Your task to perform on an android device: Go to location settings Image 0: 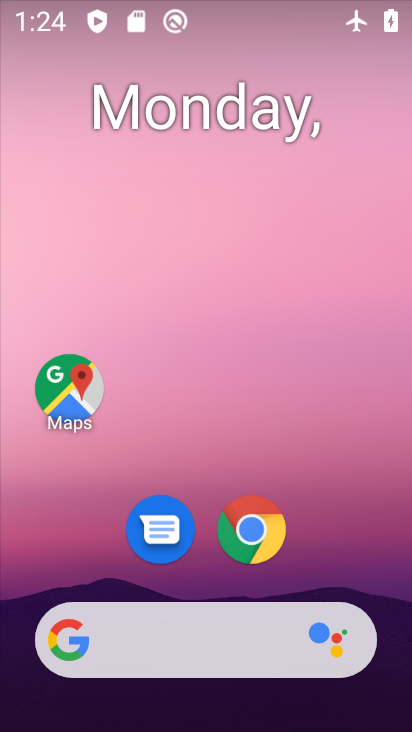
Step 0: click (381, 537)
Your task to perform on an android device: Go to location settings Image 1: 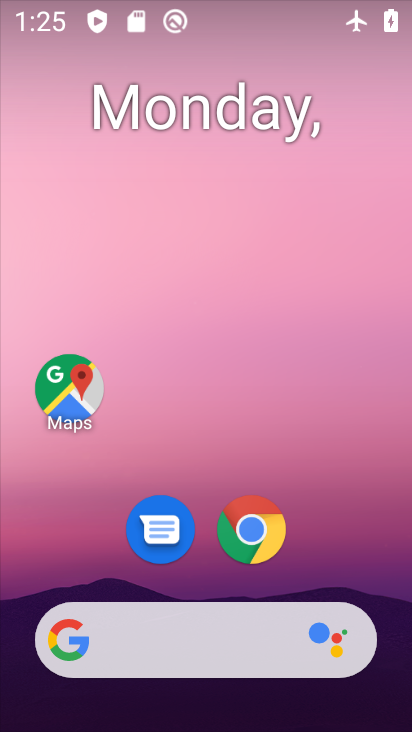
Step 1: drag from (358, 552) to (401, 110)
Your task to perform on an android device: Go to location settings Image 2: 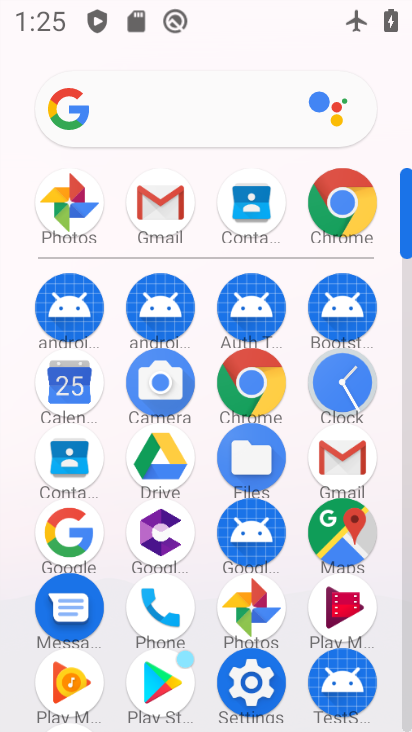
Step 2: drag from (392, 452) to (410, 154)
Your task to perform on an android device: Go to location settings Image 3: 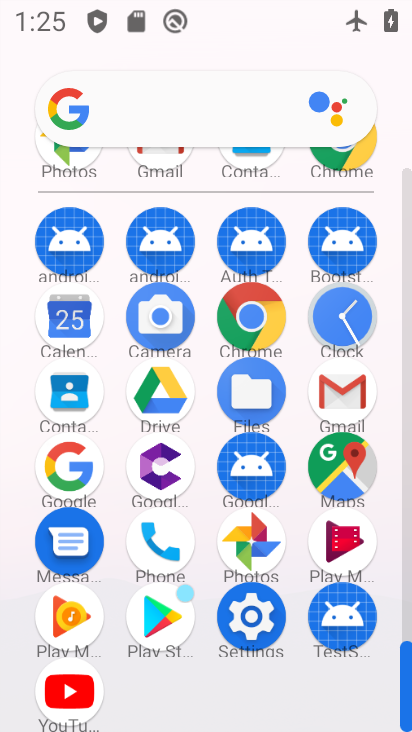
Step 3: drag from (389, 533) to (394, 276)
Your task to perform on an android device: Go to location settings Image 4: 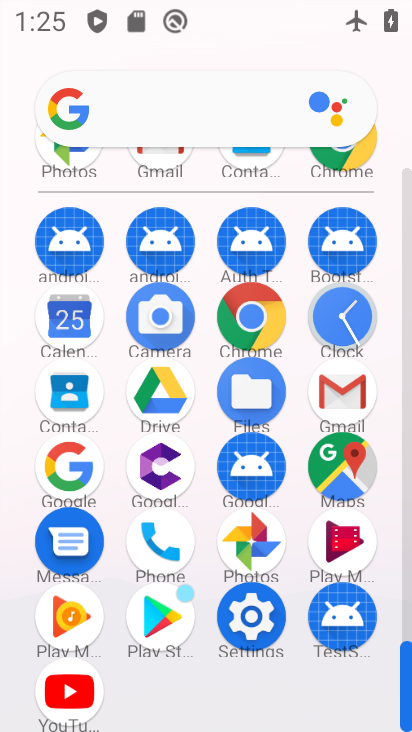
Step 4: click (246, 610)
Your task to perform on an android device: Go to location settings Image 5: 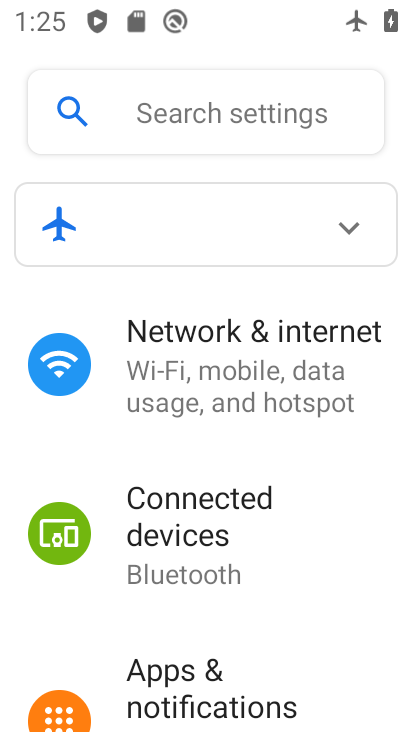
Step 5: drag from (302, 578) to (330, 228)
Your task to perform on an android device: Go to location settings Image 6: 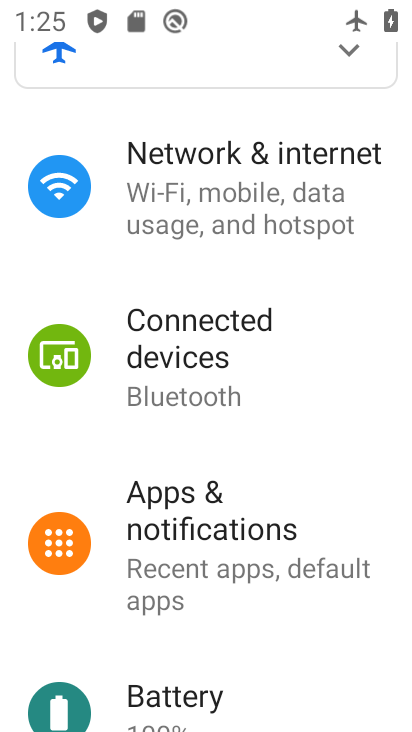
Step 6: drag from (307, 663) to (365, 262)
Your task to perform on an android device: Go to location settings Image 7: 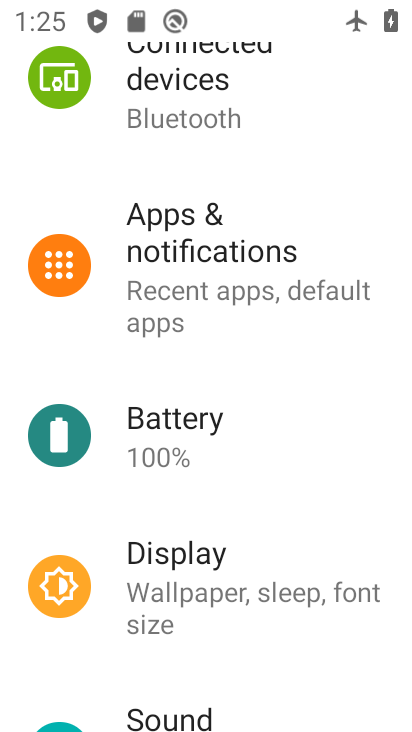
Step 7: drag from (334, 642) to (379, 216)
Your task to perform on an android device: Go to location settings Image 8: 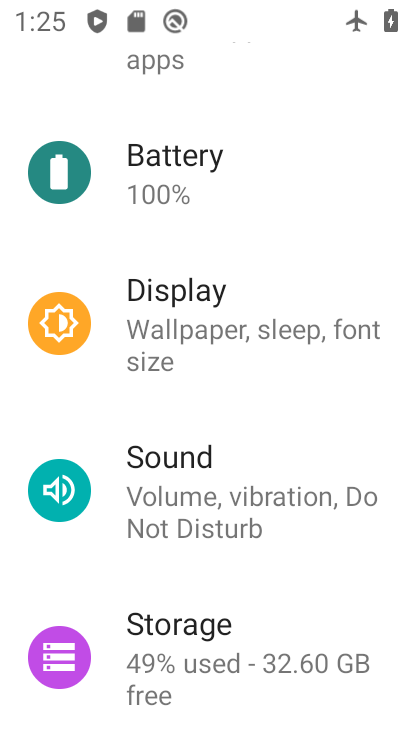
Step 8: drag from (338, 571) to (335, 206)
Your task to perform on an android device: Go to location settings Image 9: 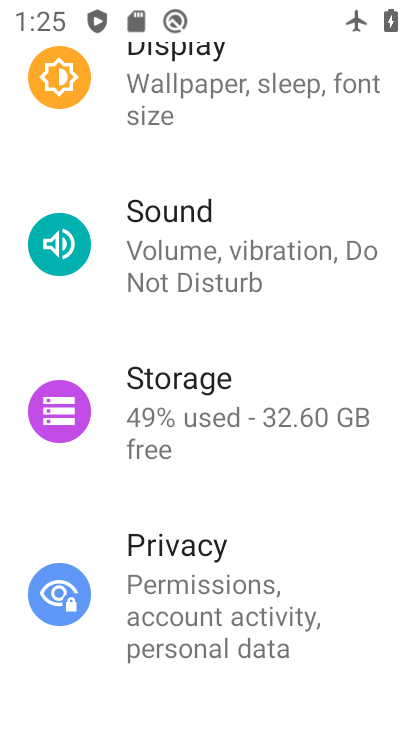
Step 9: drag from (271, 554) to (296, 170)
Your task to perform on an android device: Go to location settings Image 10: 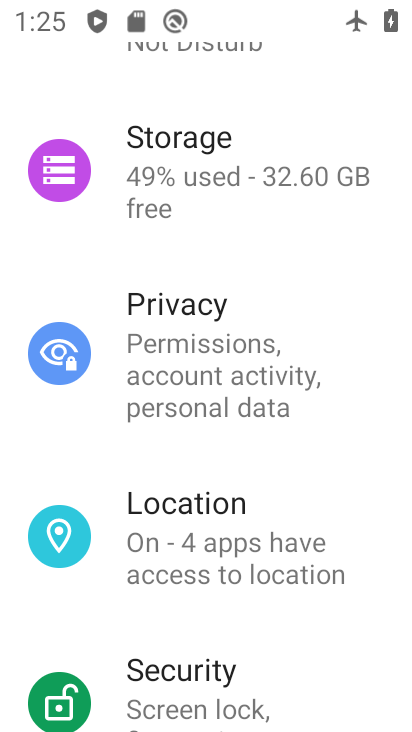
Step 10: click (232, 517)
Your task to perform on an android device: Go to location settings Image 11: 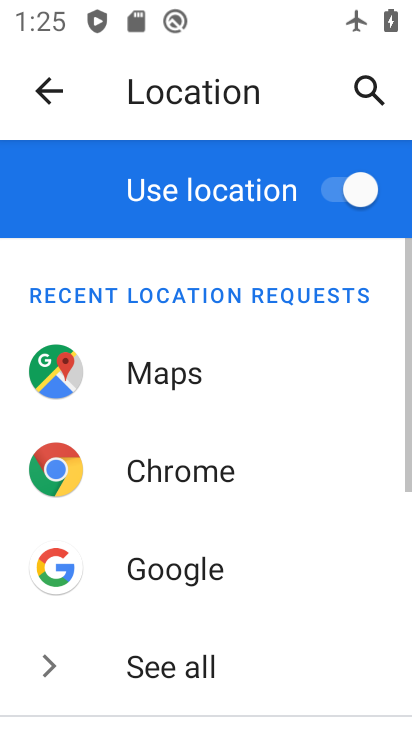
Step 11: task complete